Your task to perform on an android device: turn pop-ups off in chrome Image 0: 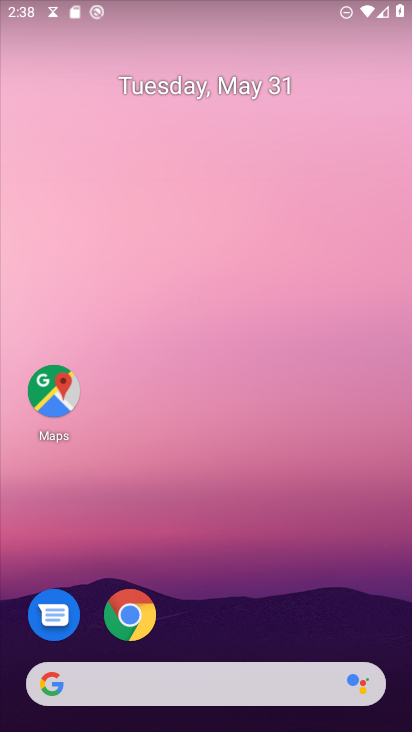
Step 0: drag from (246, 681) to (257, 253)
Your task to perform on an android device: turn pop-ups off in chrome Image 1: 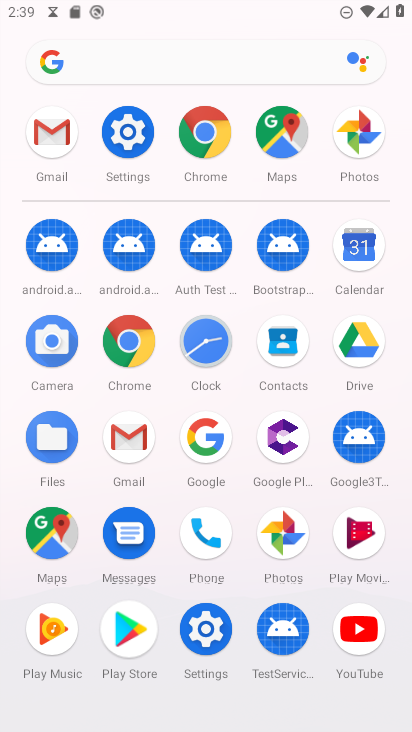
Step 1: click (108, 343)
Your task to perform on an android device: turn pop-ups off in chrome Image 2: 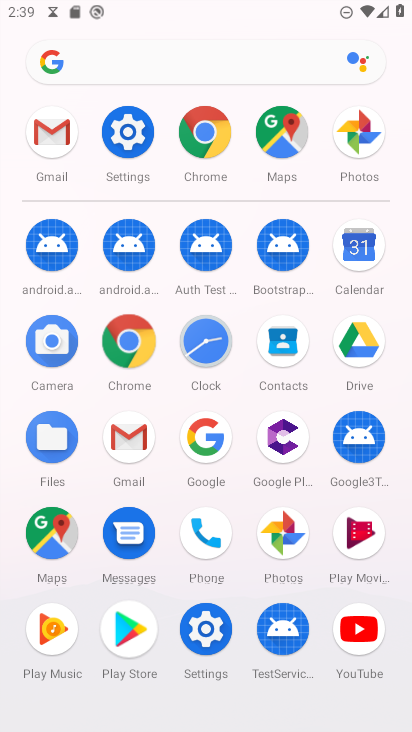
Step 2: click (112, 340)
Your task to perform on an android device: turn pop-ups off in chrome Image 3: 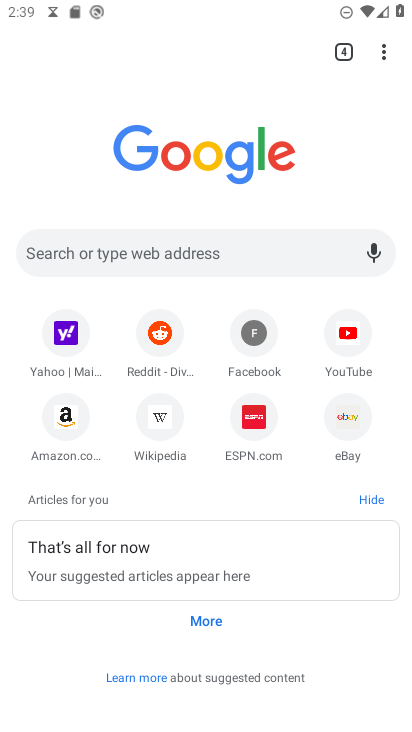
Step 3: drag from (382, 40) to (378, 281)
Your task to perform on an android device: turn pop-ups off in chrome Image 4: 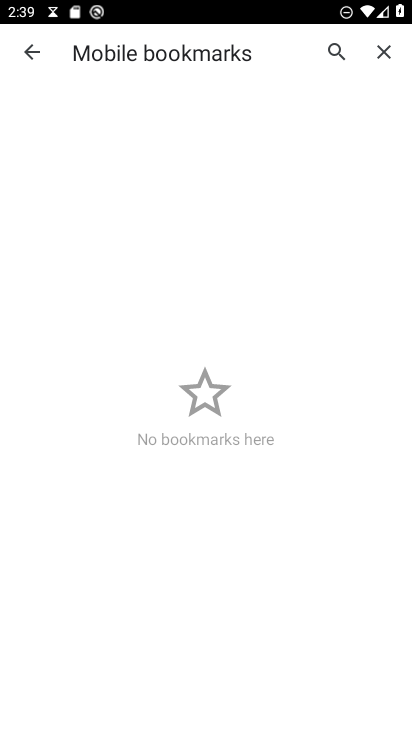
Step 4: click (46, 48)
Your task to perform on an android device: turn pop-ups off in chrome Image 5: 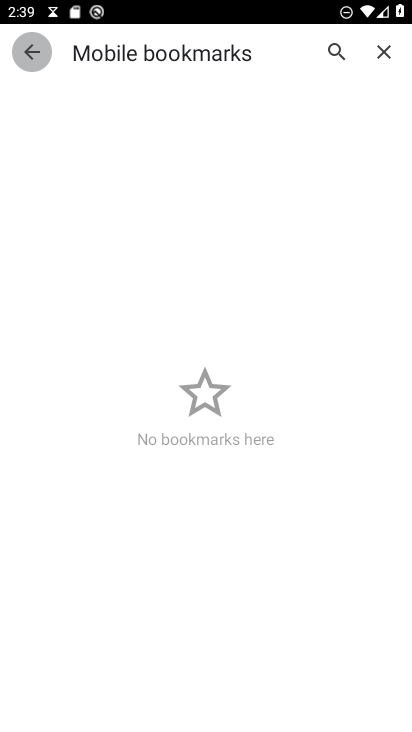
Step 5: click (43, 46)
Your task to perform on an android device: turn pop-ups off in chrome Image 6: 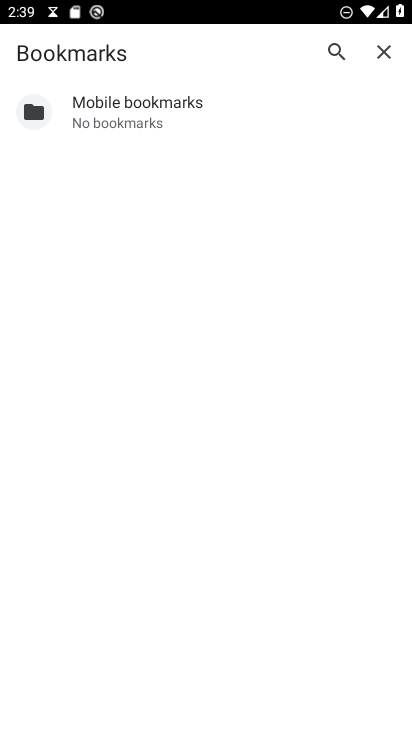
Step 6: click (39, 46)
Your task to perform on an android device: turn pop-ups off in chrome Image 7: 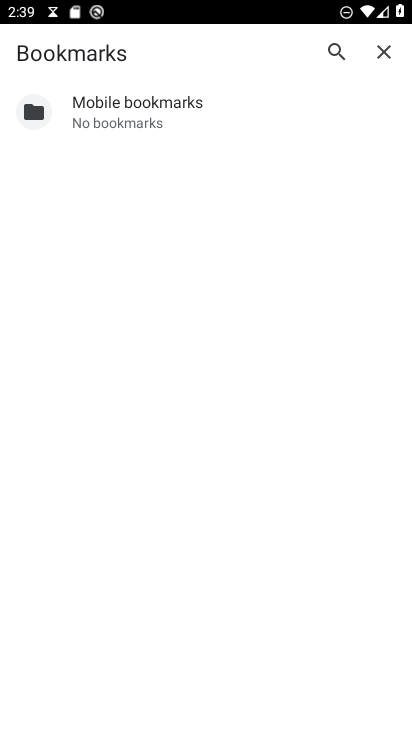
Step 7: click (38, 46)
Your task to perform on an android device: turn pop-ups off in chrome Image 8: 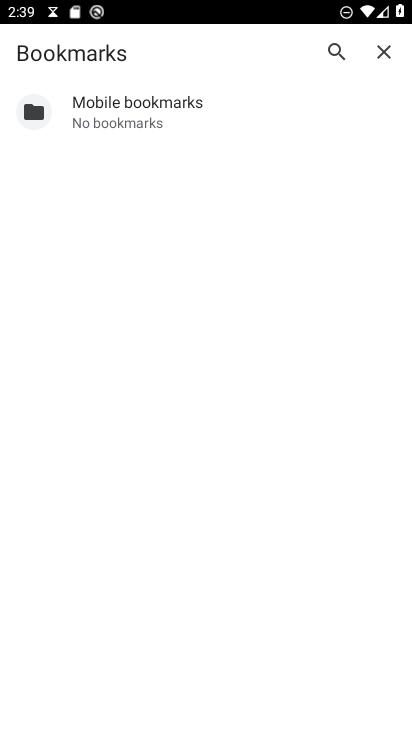
Step 8: click (37, 46)
Your task to perform on an android device: turn pop-ups off in chrome Image 9: 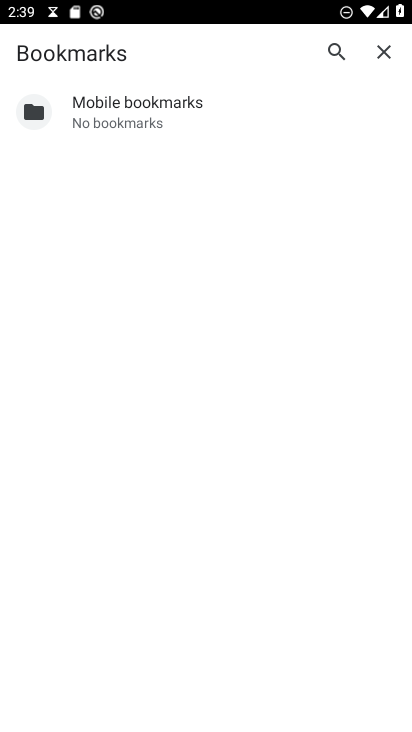
Step 9: click (380, 45)
Your task to perform on an android device: turn pop-ups off in chrome Image 10: 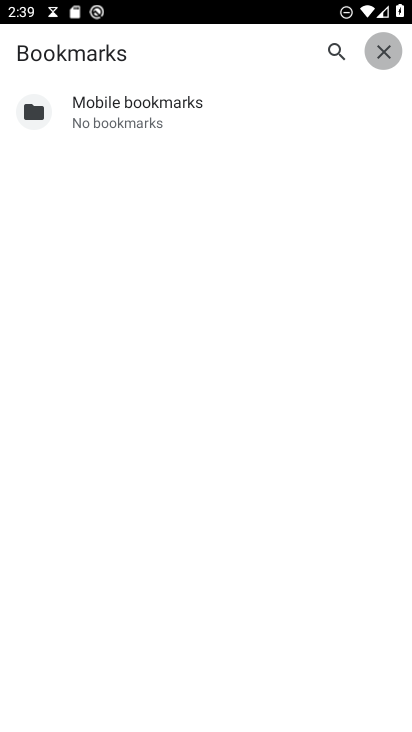
Step 10: click (380, 45)
Your task to perform on an android device: turn pop-ups off in chrome Image 11: 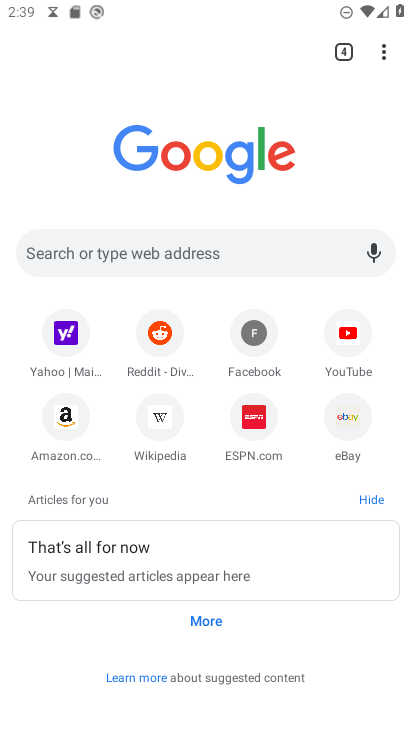
Step 11: drag from (383, 57) to (190, 481)
Your task to perform on an android device: turn pop-ups off in chrome Image 12: 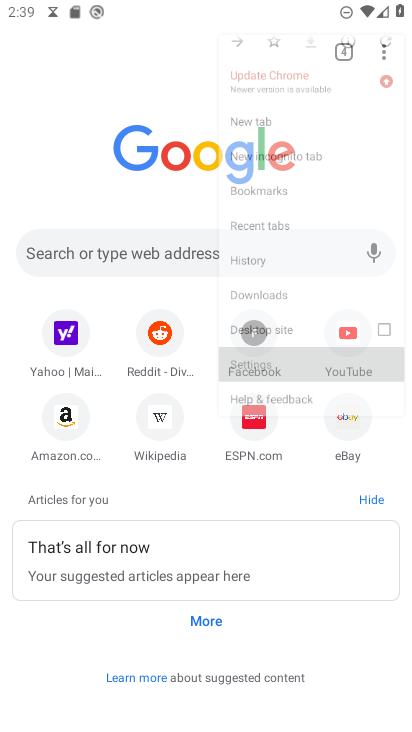
Step 12: click (190, 481)
Your task to perform on an android device: turn pop-ups off in chrome Image 13: 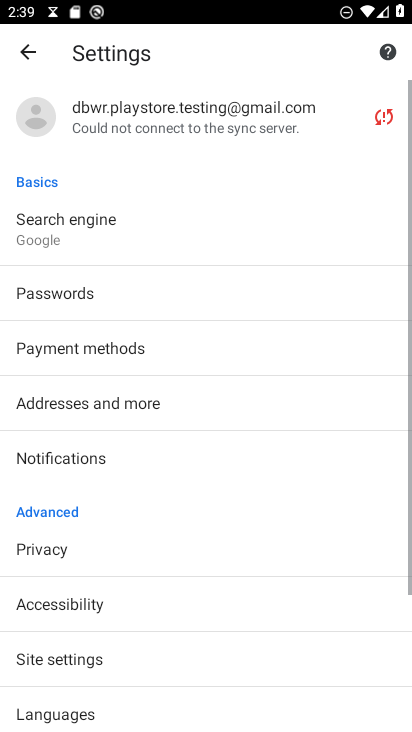
Step 13: drag from (131, 589) to (81, 129)
Your task to perform on an android device: turn pop-ups off in chrome Image 14: 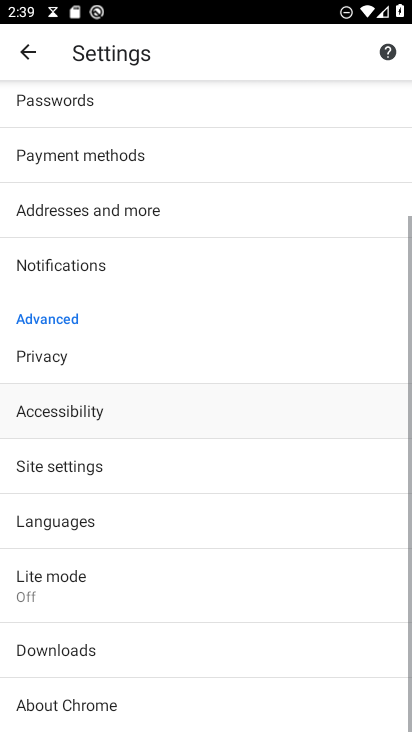
Step 14: drag from (150, 390) to (151, 137)
Your task to perform on an android device: turn pop-ups off in chrome Image 15: 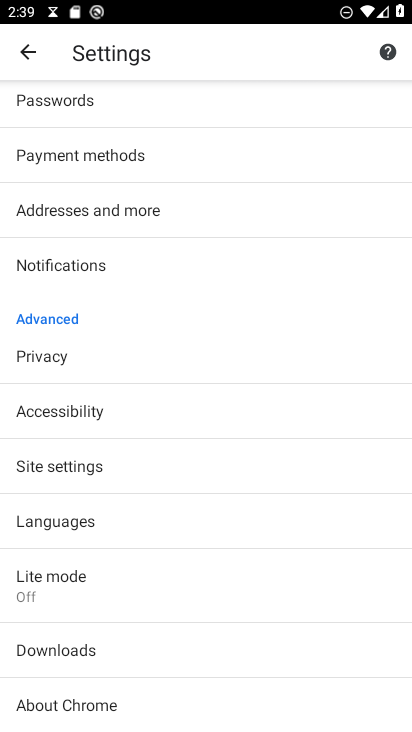
Step 15: click (51, 457)
Your task to perform on an android device: turn pop-ups off in chrome Image 16: 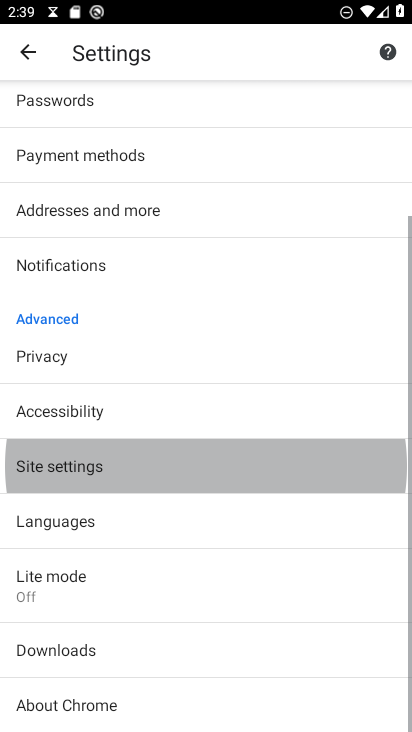
Step 16: click (51, 457)
Your task to perform on an android device: turn pop-ups off in chrome Image 17: 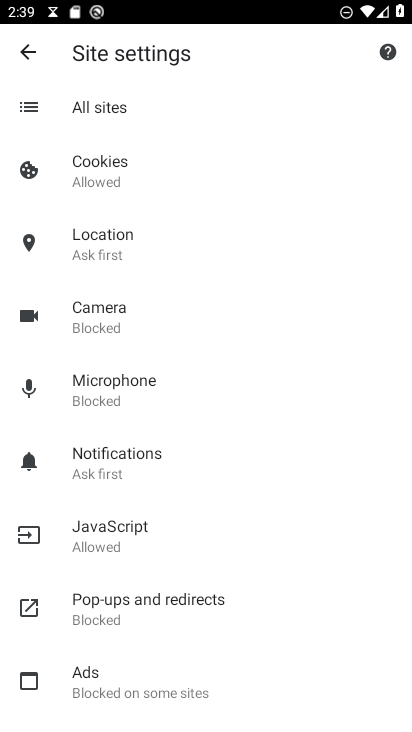
Step 17: click (109, 601)
Your task to perform on an android device: turn pop-ups off in chrome Image 18: 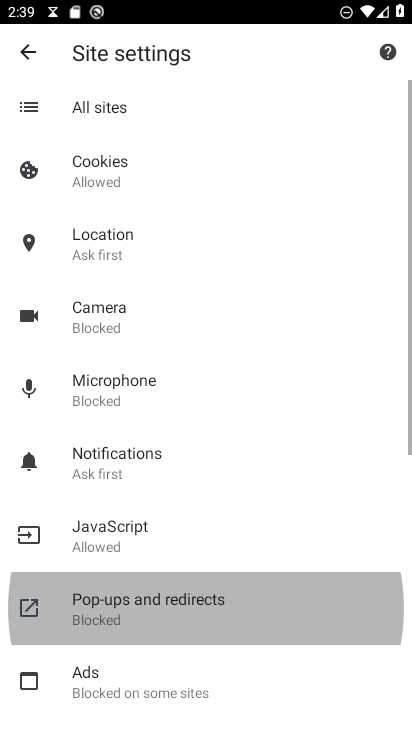
Step 18: click (109, 601)
Your task to perform on an android device: turn pop-ups off in chrome Image 19: 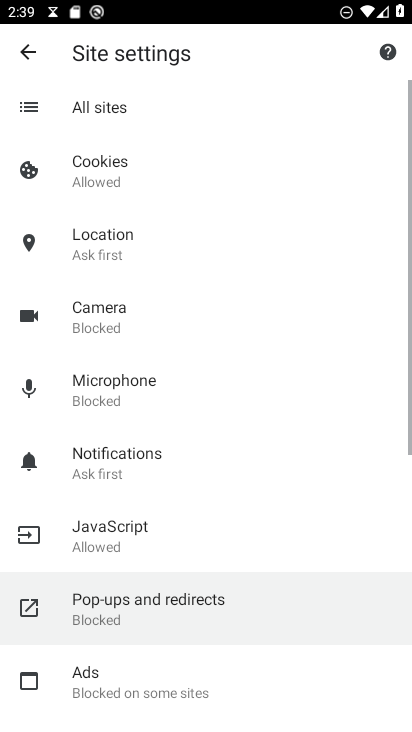
Step 19: click (109, 601)
Your task to perform on an android device: turn pop-ups off in chrome Image 20: 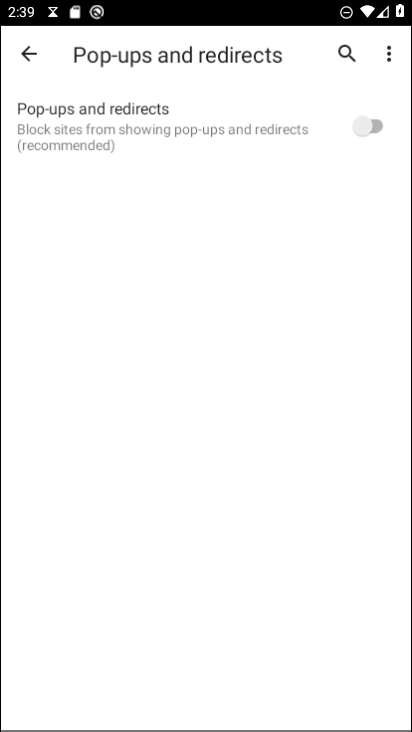
Step 20: click (109, 602)
Your task to perform on an android device: turn pop-ups off in chrome Image 21: 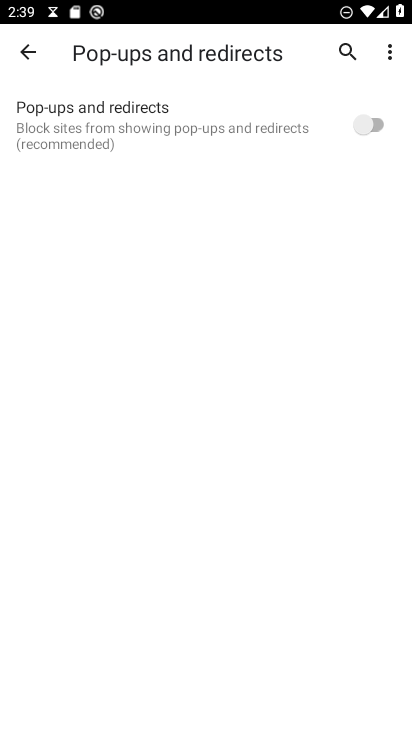
Step 21: task complete